Your task to perform on an android device: Open settings Image 0: 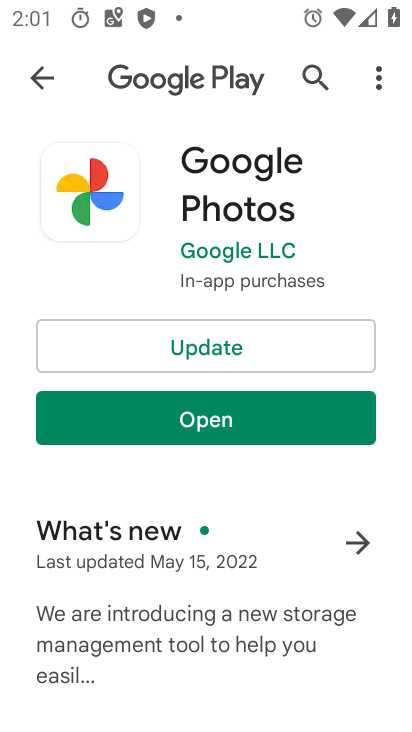
Step 0: press back button
Your task to perform on an android device: Open settings Image 1: 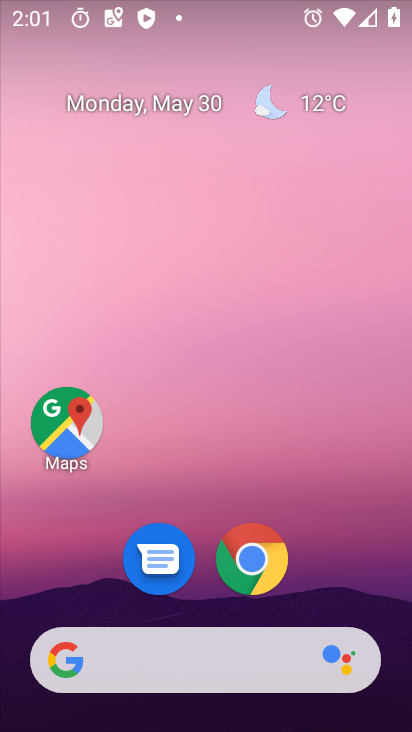
Step 1: drag from (228, 458) to (290, 19)
Your task to perform on an android device: Open settings Image 2: 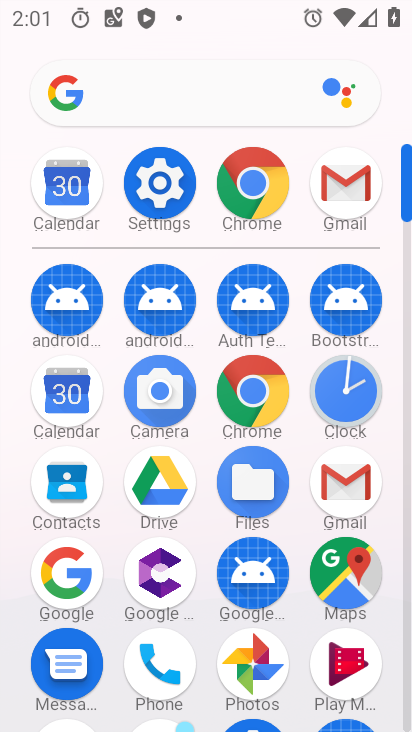
Step 2: click (159, 173)
Your task to perform on an android device: Open settings Image 3: 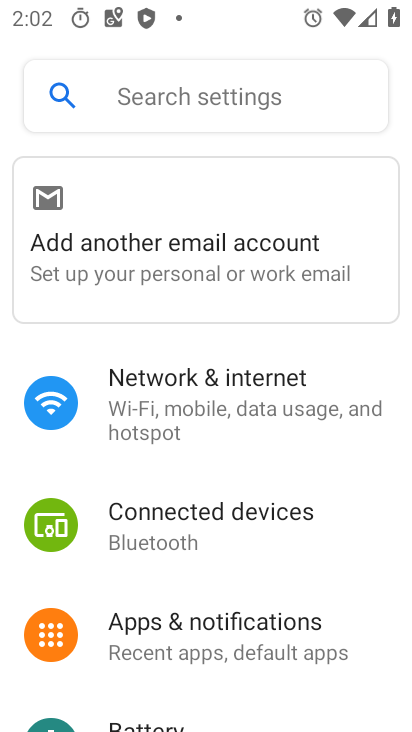
Step 3: task complete